Your task to perform on an android device: change notification settings in the gmail app Image 0: 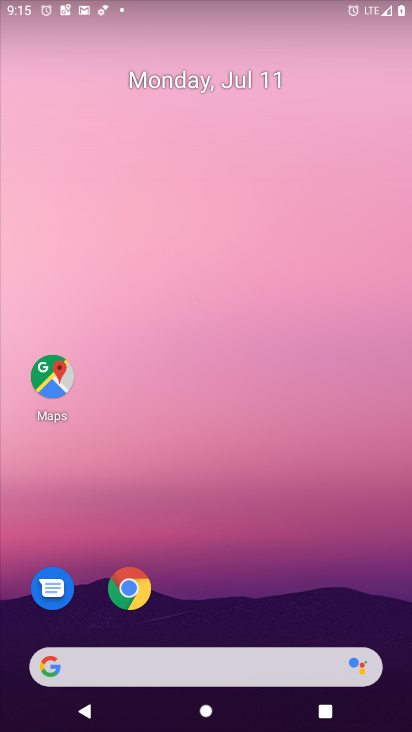
Step 0: drag from (211, 662) to (284, 196)
Your task to perform on an android device: change notification settings in the gmail app Image 1: 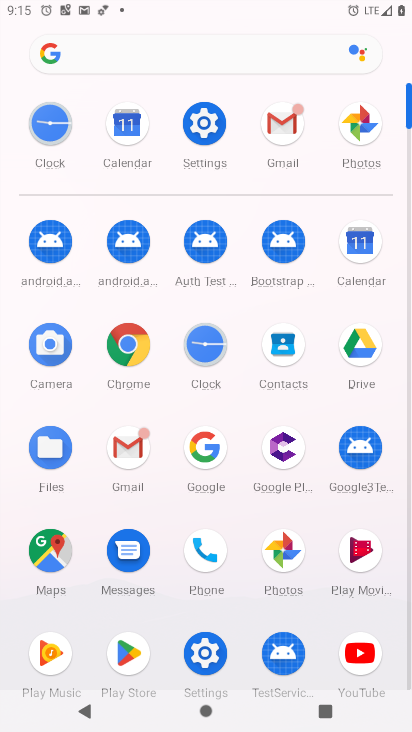
Step 1: click (132, 450)
Your task to perform on an android device: change notification settings in the gmail app Image 2: 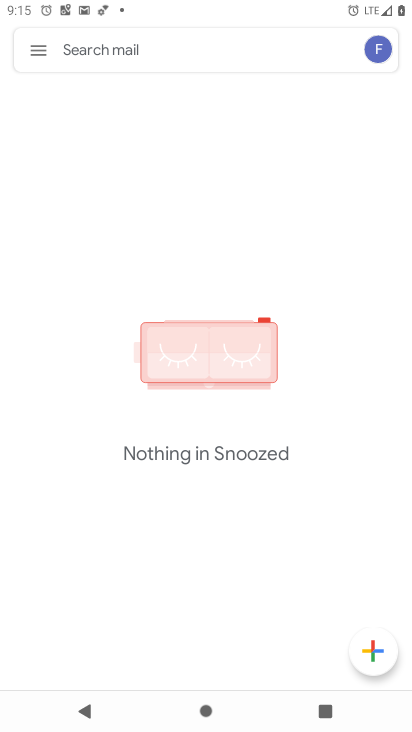
Step 2: click (39, 46)
Your task to perform on an android device: change notification settings in the gmail app Image 3: 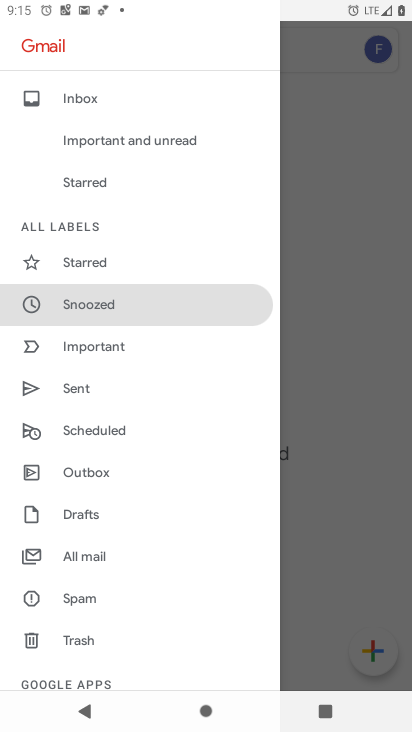
Step 3: drag from (113, 628) to (213, 51)
Your task to perform on an android device: change notification settings in the gmail app Image 4: 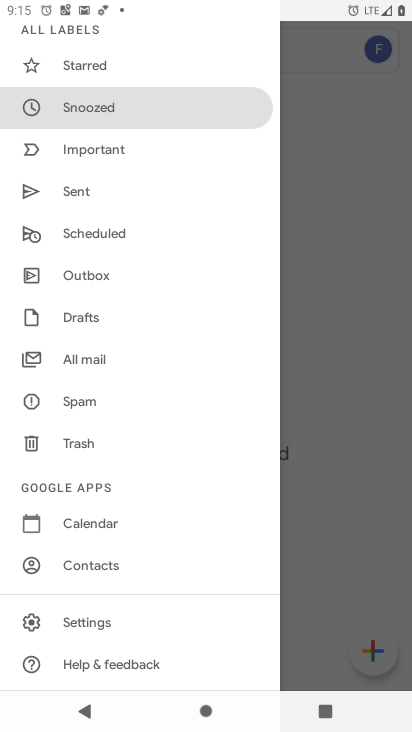
Step 4: click (91, 623)
Your task to perform on an android device: change notification settings in the gmail app Image 5: 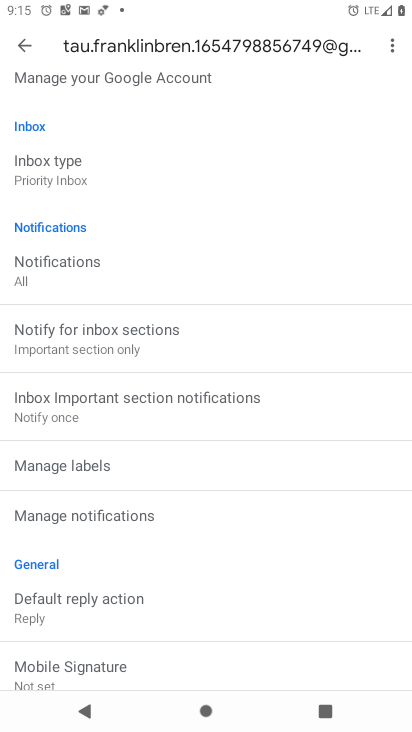
Step 5: click (65, 268)
Your task to perform on an android device: change notification settings in the gmail app Image 6: 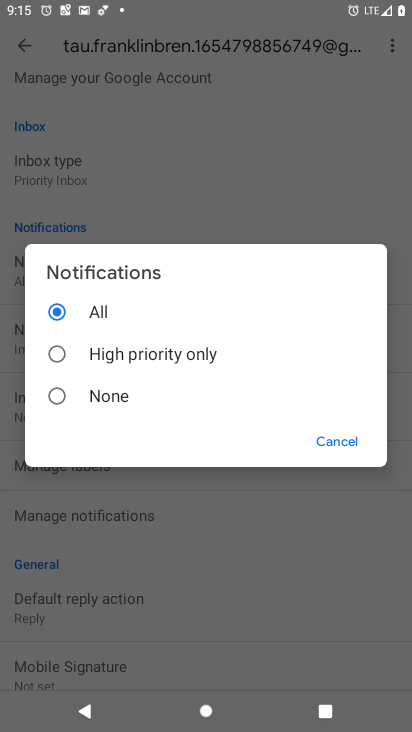
Step 6: click (61, 352)
Your task to perform on an android device: change notification settings in the gmail app Image 7: 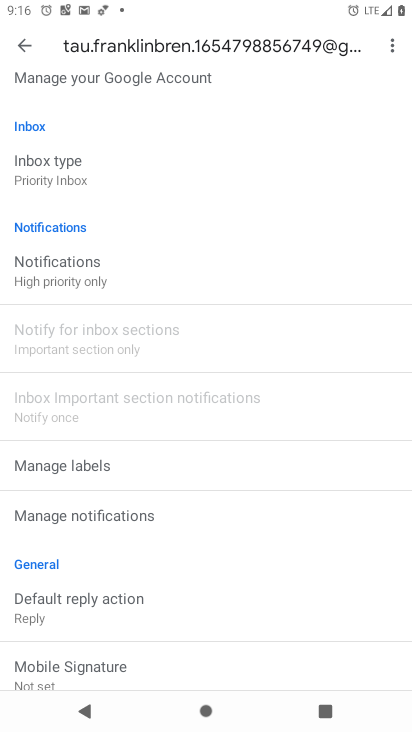
Step 7: task complete